Your task to perform on an android device: Open settings on Google Maps Image 0: 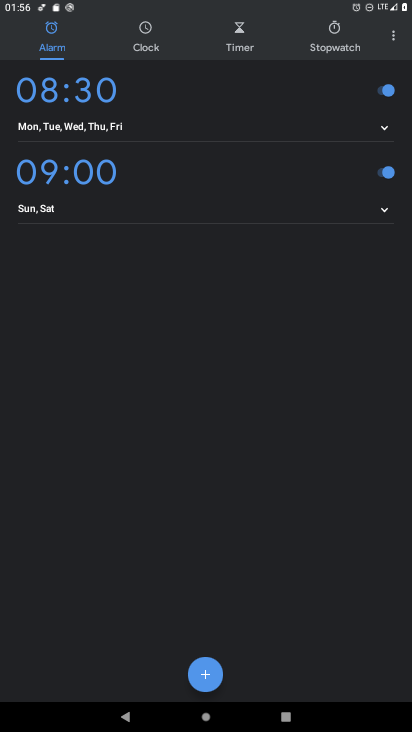
Step 0: press home button
Your task to perform on an android device: Open settings on Google Maps Image 1: 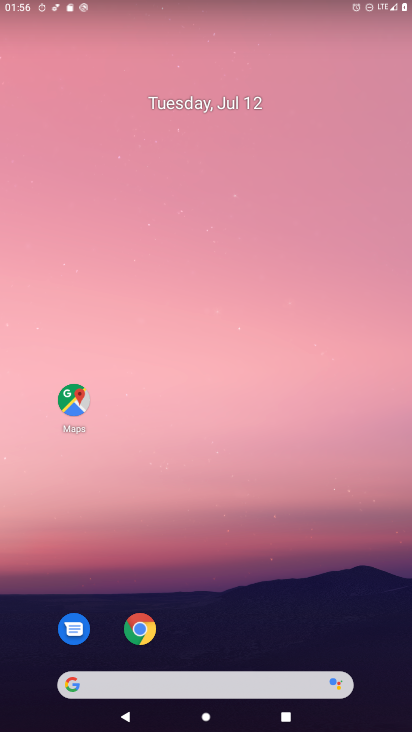
Step 1: click (75, 394)
Your task to perform on an android device: Open settings on Google Maps Image 2: 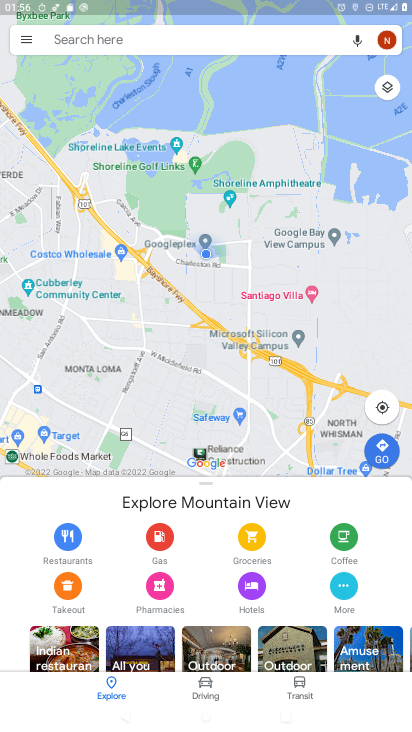
Step 2: task complete